Your task to perform on an android device: What is the recent news? Image 0: 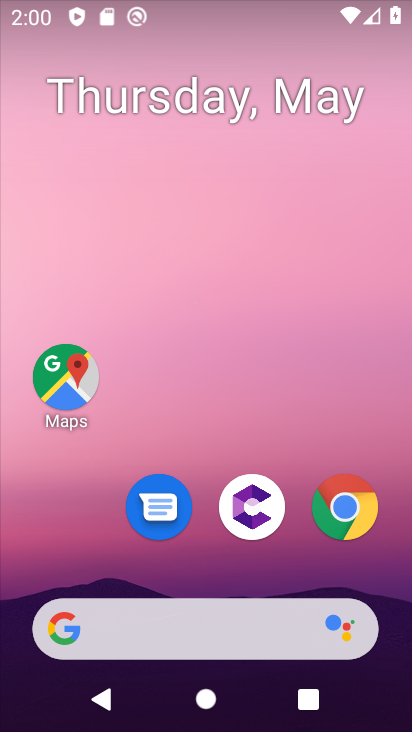
Step 0: click (68, 639)
Your task to perform on an android device: What is the recent news? Image 1: 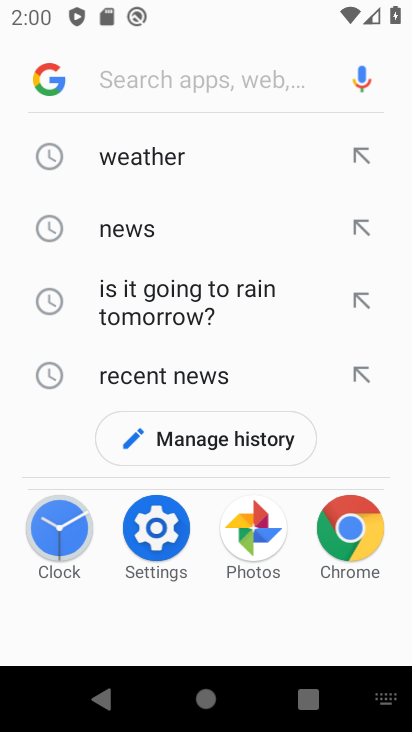
Step 1: click (185, 382)
Your task to perform on an android device: What is the recent news? Image 2: 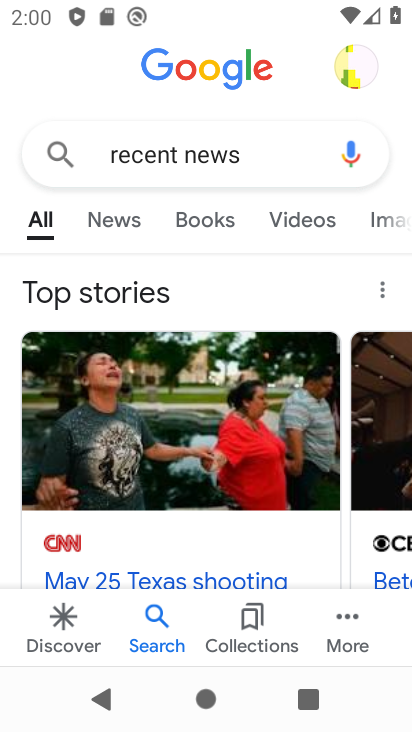
Step 2: task complete